Your task to perform on an android device: What's the weather going to be tomorrow? Image 0: 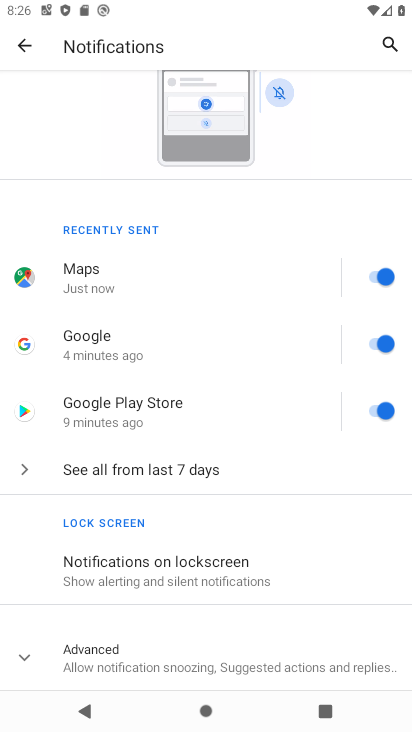
Step 0: press home button
Your task to perform on an android device: What's the weather going to be tomorrow? Image 1: 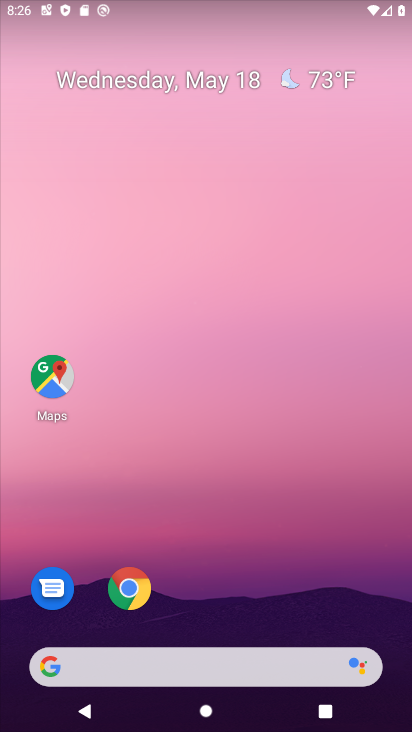
Step 1: drag from (359, 613) to (317, 102)
Your task to perform on an android device: What's the weather going to be tomorrow? Image 2: 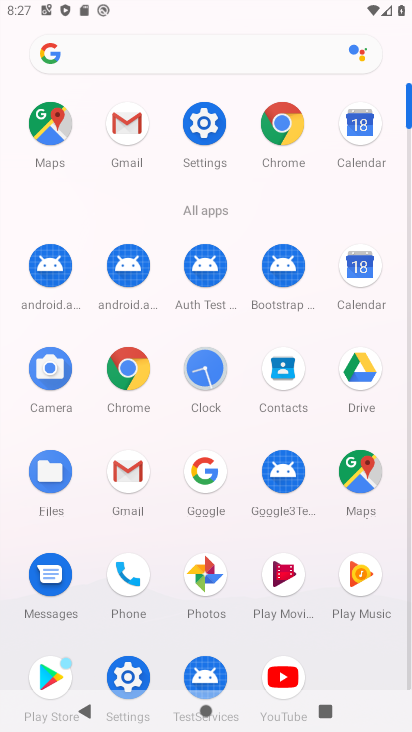
Step 2: click (292, 131)
Your task to perform on an android device: What's the weather going to be tomorrow? Image 3: 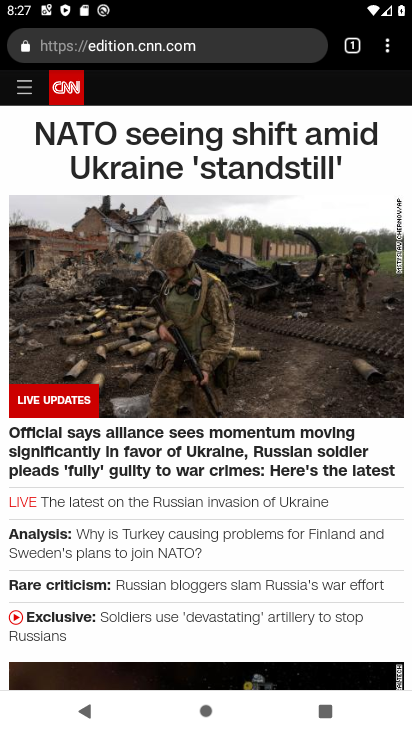
Step 3: click (156, 50)
Your task to perform on an android device: What's the weather going to be tomorrow? Image 4: 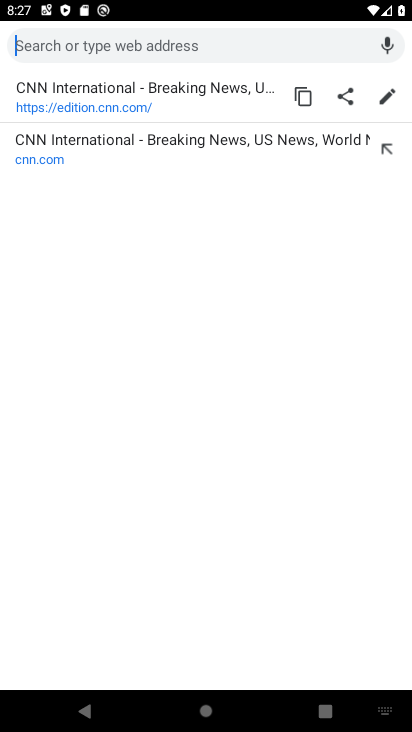
Step 4: type "what's the weather going to be tomorrow "
Your task to perform on an android device: What's the weather going to be tomorrow? Image 5: 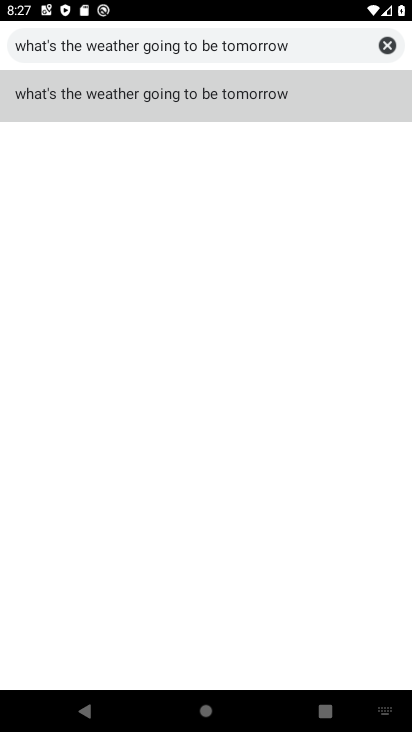
Step 5: click (239, 97)
Your task to perform on an android device: What's the weather going to be tomorrow? Image 6: 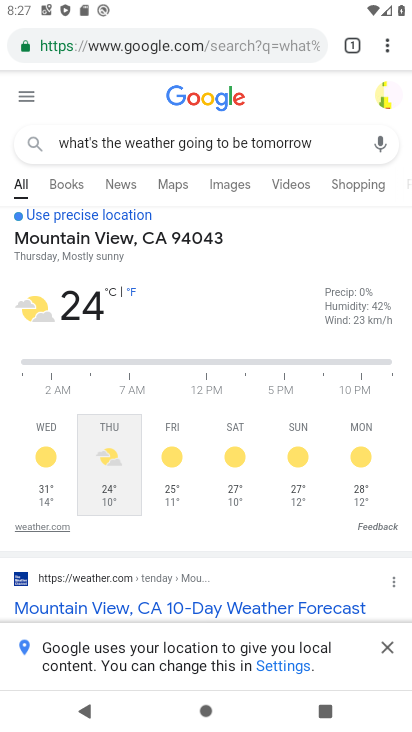
Step 6: task complete